Your task to perform on an android device: clear all cookies in the chrome app Image 0: 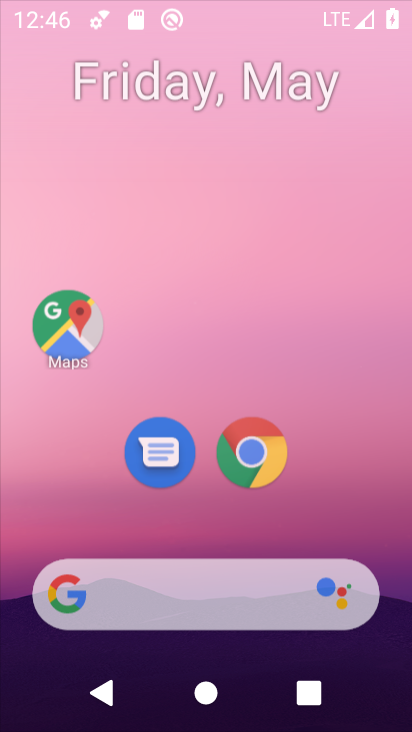
Step 0: drag from (370, 515) to (384, 90)
Your task to perform on an android device: clear all cookies in the chrome app Image 1: 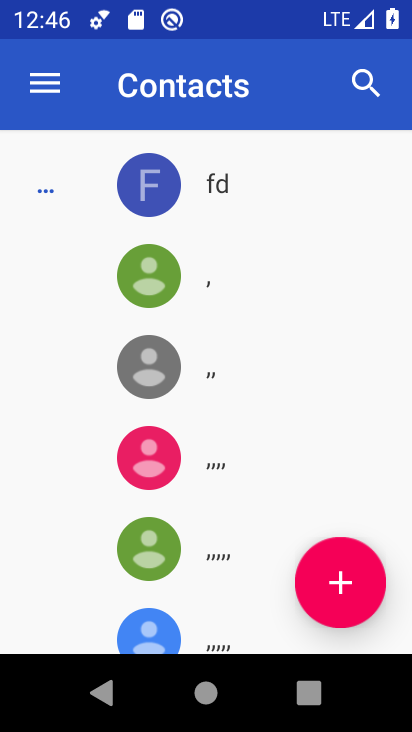
Step 1: press home button
Your task to perform on an android device: clear all cookies in the chrome app Image 2: 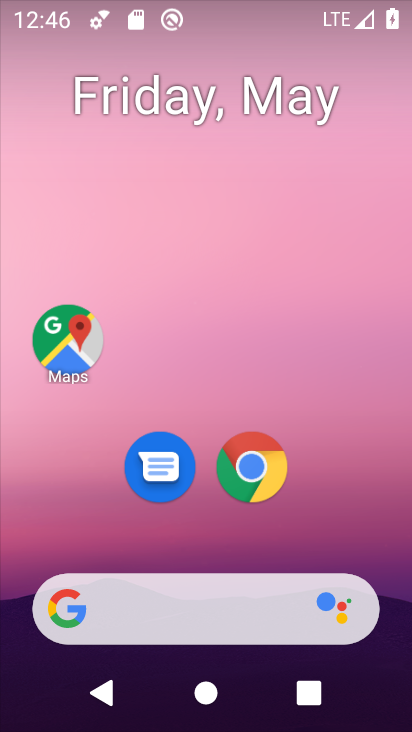
Step 2: drag from (368, 510) to (396, 68)
Your task to perform on an android device: clear all cookies in the chrome app Image 3: 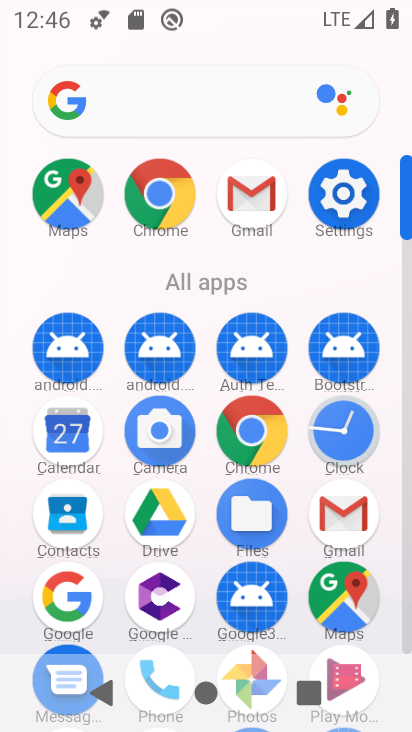
Step 3: click (144, 199)
Your task to perform on an android device: clear all cookies in the chrome app Image 4: 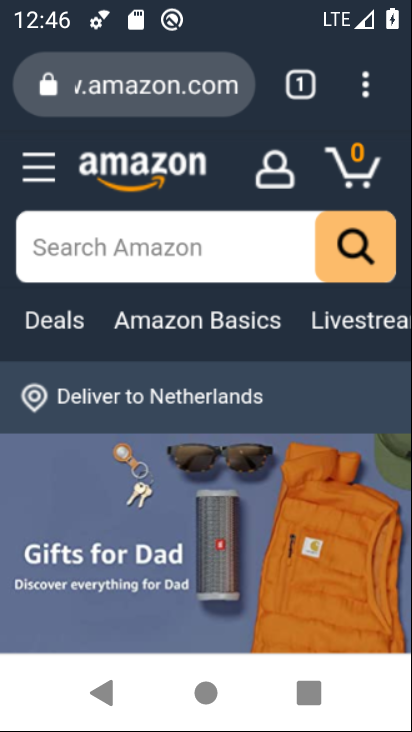
Step 4: drag from (378, 98) to (140, 485)
Your task to perform on an android device: clear all cookies in the chrome app Image 5: 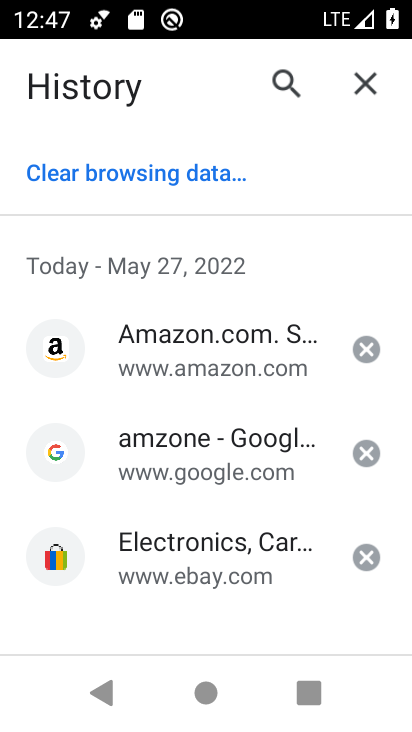
Step 5: click (153, 178)
Your task to perform on an android device: clear all cookies in the chrome app Image 6: 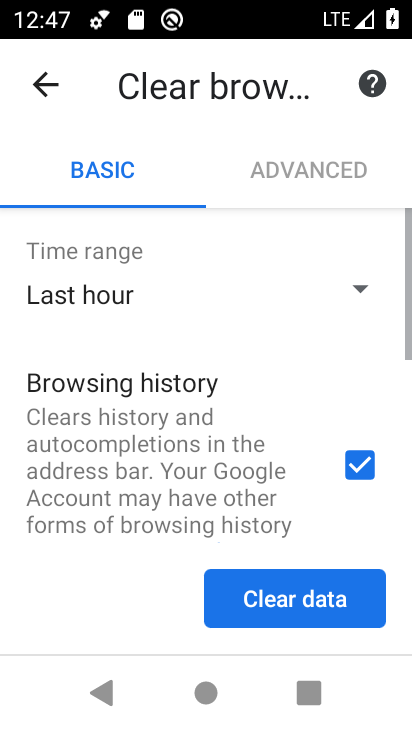
Step 6: click (281, 596)
Your task to perform on an android device: clear all cookies in the chrome app Image 7: 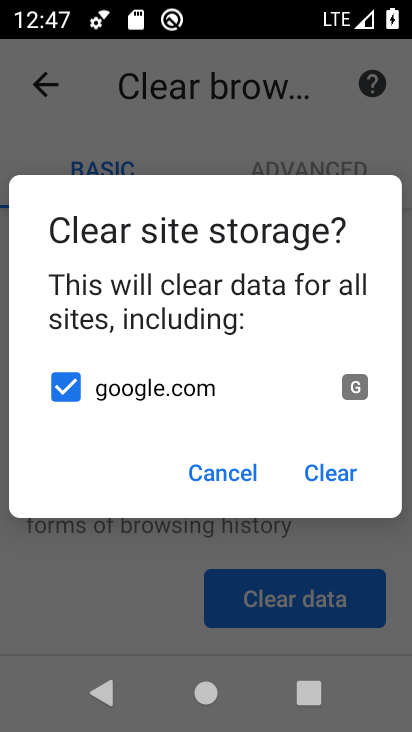
Step 7: click (227, 467)
Your task to perform on an android device: clear all cookies in the chrome app Image 8: 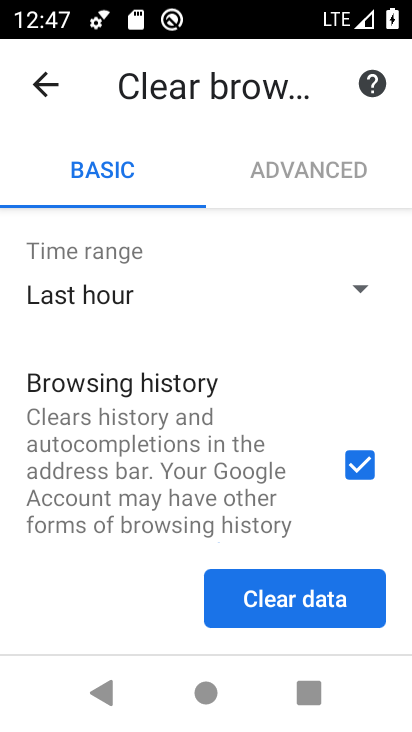
Step 8: drag from (226, 457) to (232, 199)
Your task to perform on an android device: clear all cookies in the chrome app Image 9: 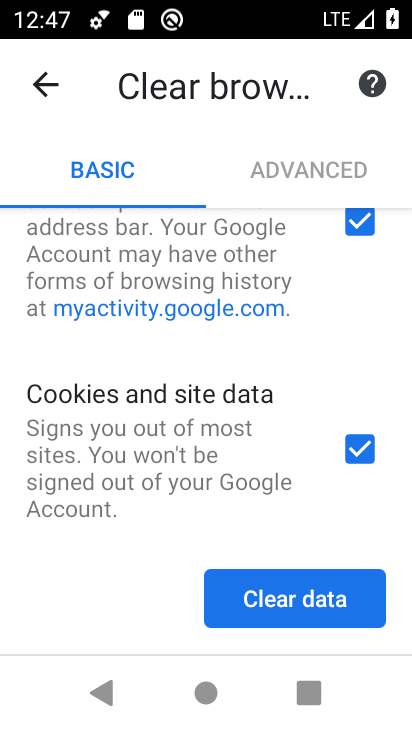
Step 9: click (364, 217)
Your task to perform on an android device: clear all cookies in the chrome app Image 10: 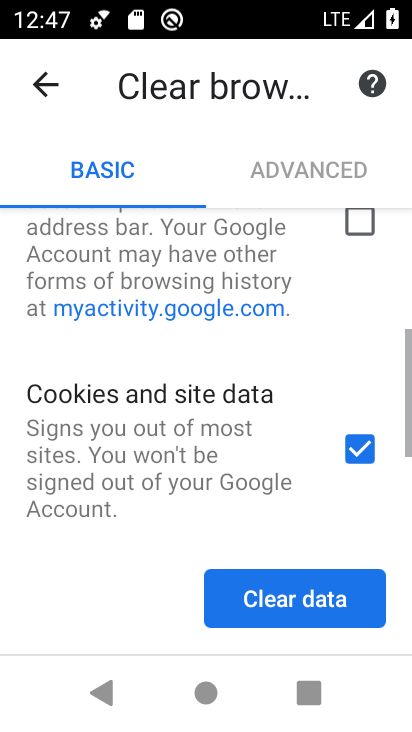
Step 10: drag from (181, 461) to (194, 187)
Your task to perform on an android device: clear all cookies in the chrome app Image 11: 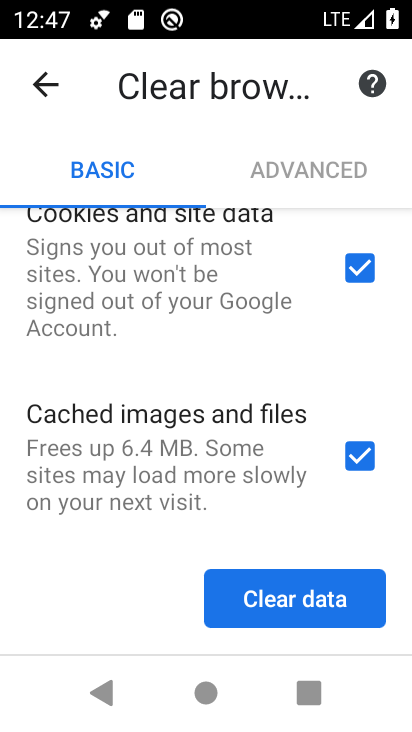
Step 11: click (347, 454)
Your task to perform on an android device: clear all cookies in the chrome app Image 12: 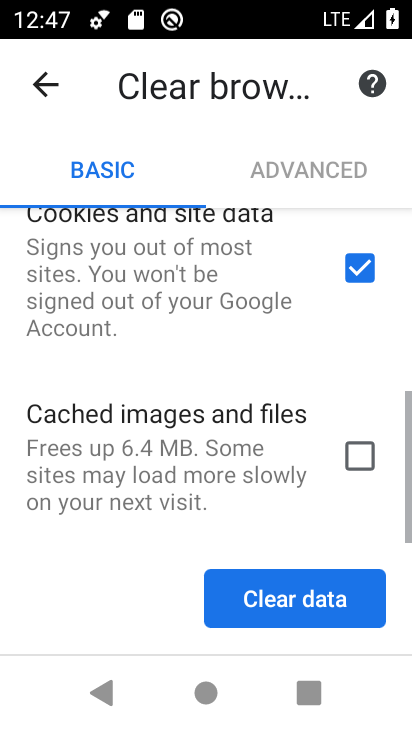
Step 12: click (303, 591)
Your task to perform on an android device: clear all cookies in the chrome app Image 13: 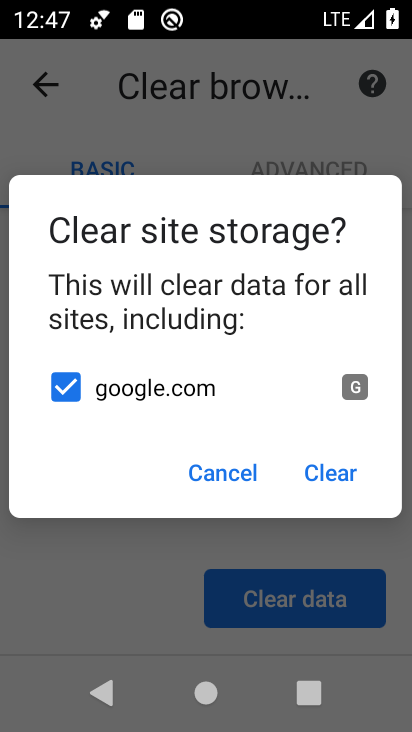
Step 13: click (341, 480)
Your task to perform on an android device: clear all cookies in the chrome app Image 14: 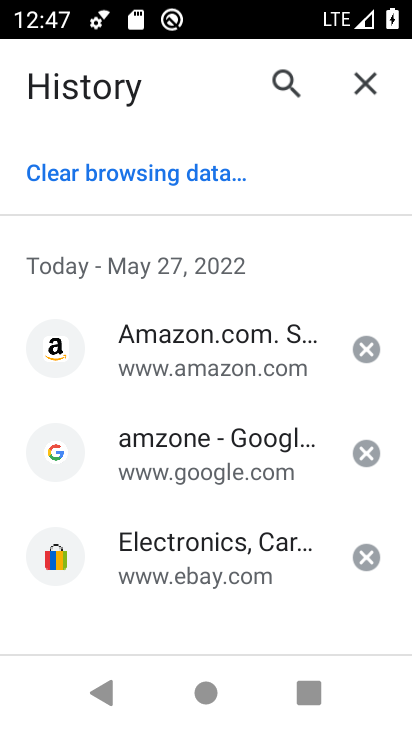
Step 14: task complete